Your task to perform on an android device: toggle priority inbox in the gmail app Image 0: 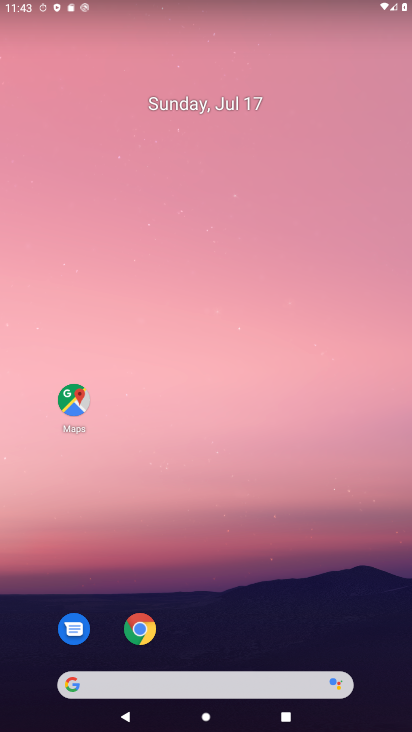
Step 0: drag from (229, 651) to (235, 26)
Your task to perform on an android device: toggle priority inbox in the gmail app Image 1: 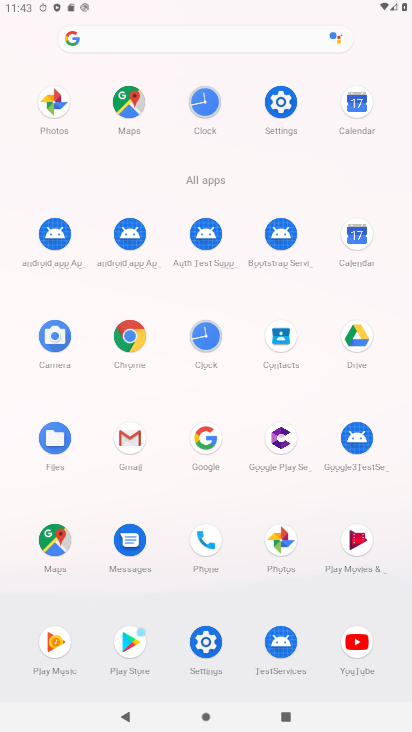
Step 1: click (129, 430)
Your task to perform on an android device: toggle priority inbox in the gmail app Image 2: 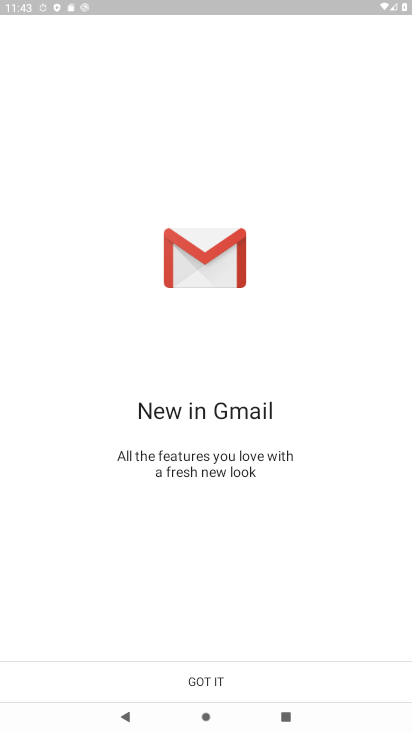
Step 2: click (215, 682)
Your task to perform on an android device: toggle priority inbox in the gmail app Image 3: 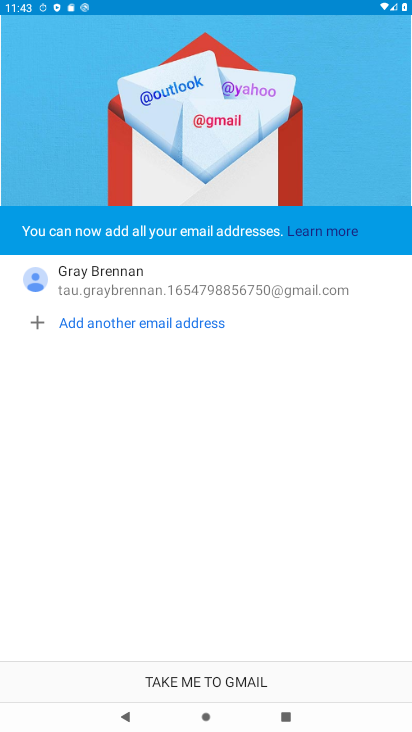
Step 3: click (209, 676)
Your task to perform on an android device: toggle priority inbox in the gmail app Image 4: 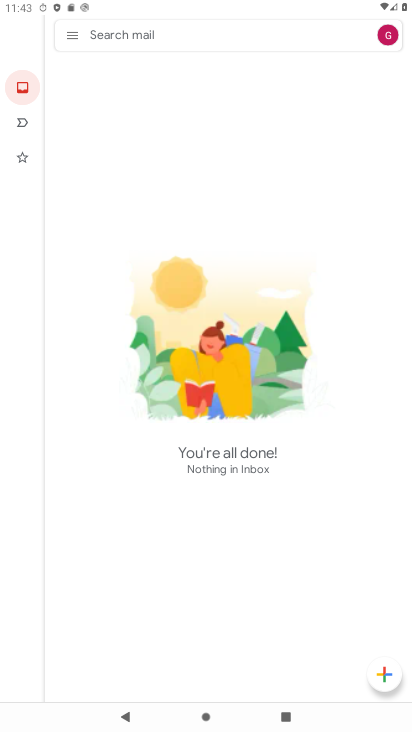
Step 4: click (69, 34)
Your task to perform on an android device: toggle priority inbox in the gmail app Image 5: 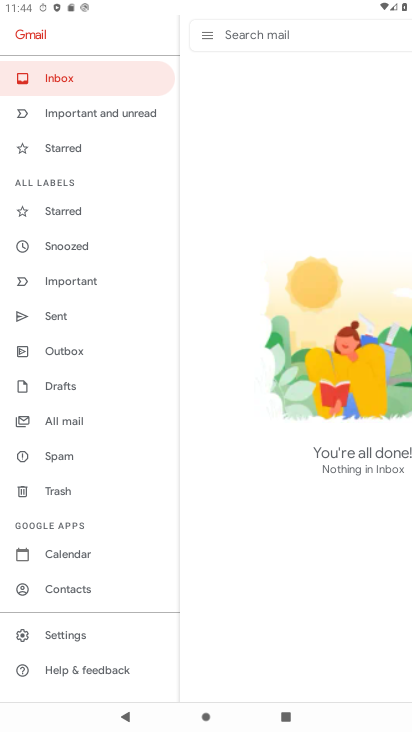
Step 5: click (89, 628)
Your task to perform on an android device: toggle priority inbox in the gmail app Image 6: 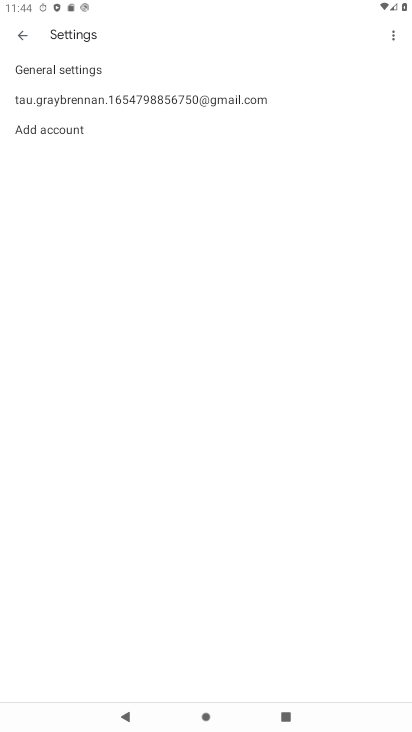
Step 6: click (153, 100)
Your task to perform on an android device: toggle priority inbox in the gmail app Image 7: 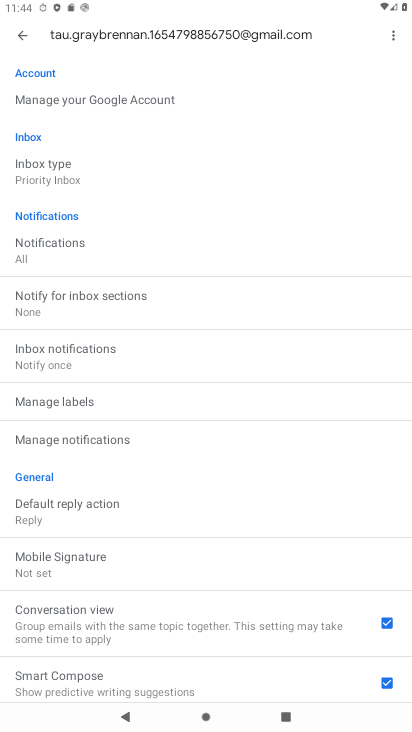
Step 7: click (100, 167)
Your task to perform on an android device: toggle priority inbox in the gmail app Image 8: 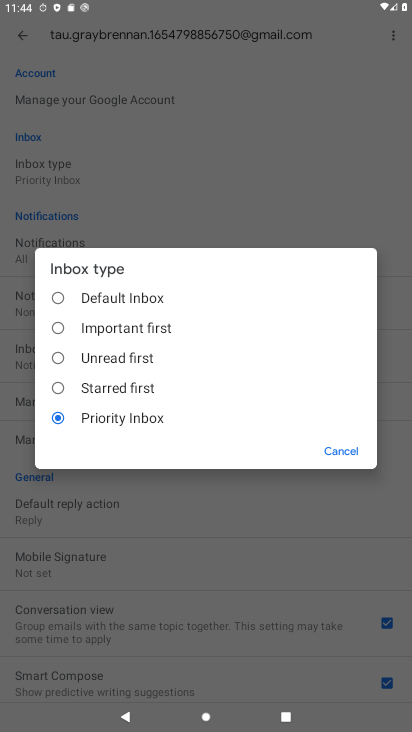
Step 8: click (60, 386)
Your task to perform on an android device: toggle priority inbox in the gmail app Image 9: 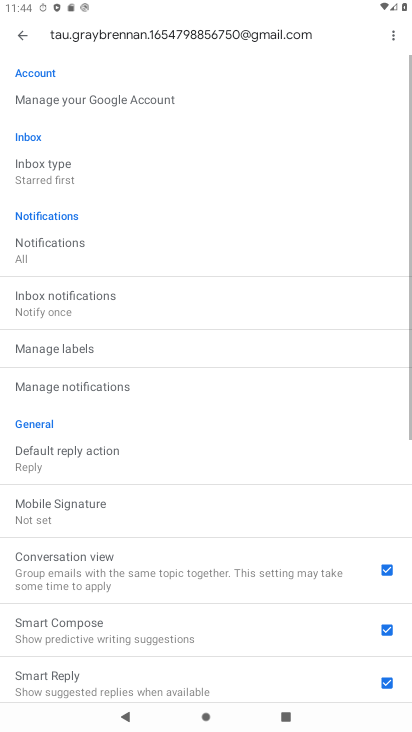
Step 9: task complete